Your task to perform on an android device: refresh tabs in the chrome app Image 0: 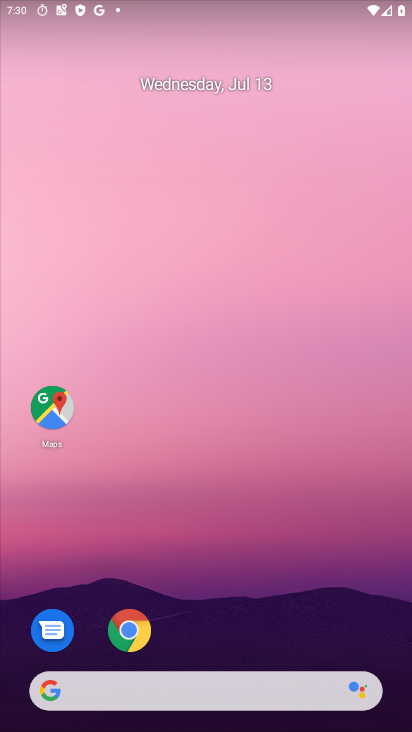
Step 0: drag from (324, 633) to (278, 9)
Your task to perform on an android device: refresh tabs in the chrome app Image 1: 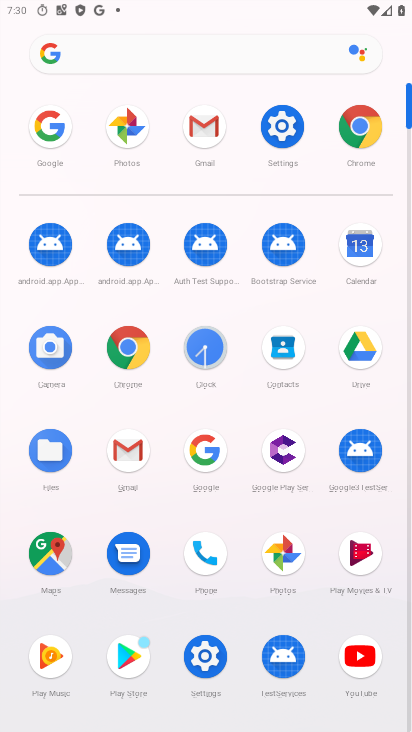
Step 1: click (364, 130)
Your task to perform on an android device: refresh tabs in the chrome app Image 2: 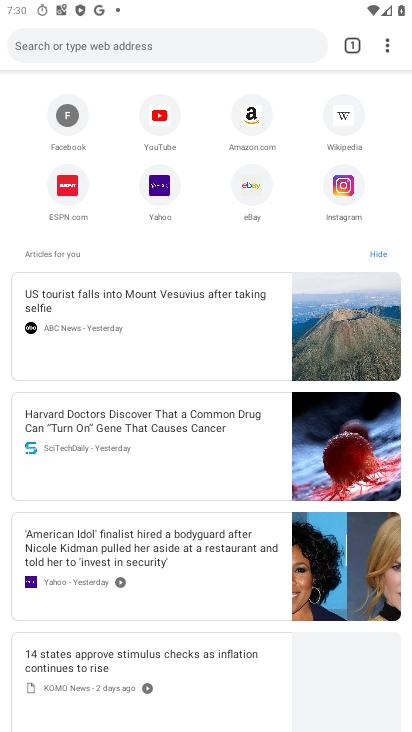
Step 2: click (392, 49)
Your task to perform on an android device: refresh tabs in the chrome app Image 3: 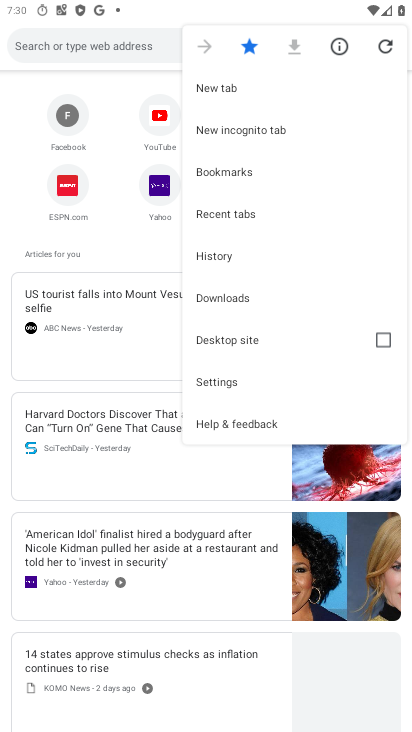
Step 3: click (389, 52)
Your task to perform on an android device: refresh tabs in the chrome app Image 4: 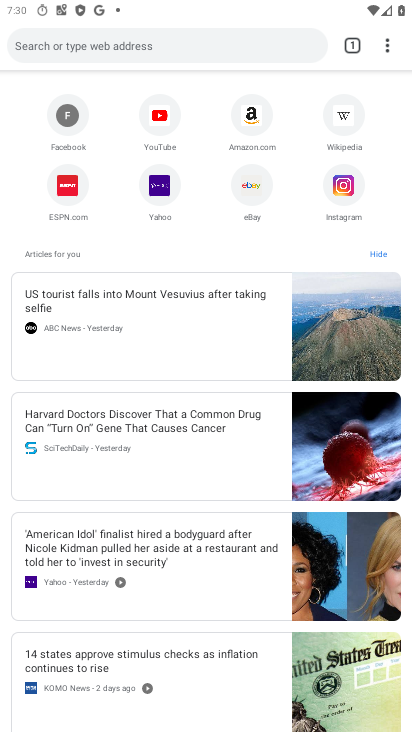
Step 4: task complete